Your task to perform on an android device: turn on the 24-hour format for clock Image 0: 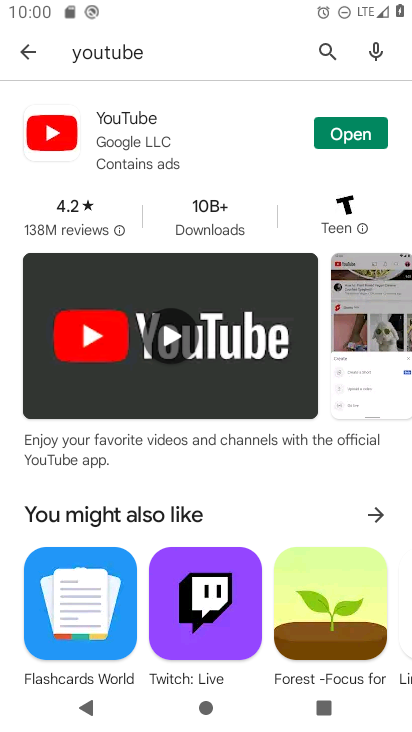
Step 0: press home button
Your task to perform on an android device: turn on the 24-hour format for clock Image 1: 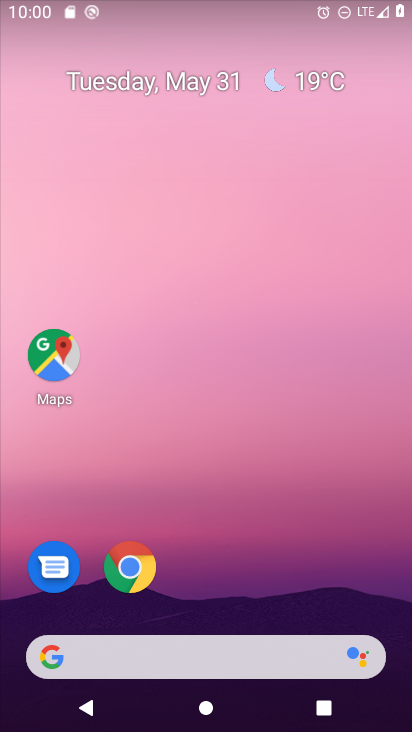
Step 1: drag from (203, 626) to (210, 258)
Your task to perform on an android device: turn on the 24-hour format for clock Image 2: 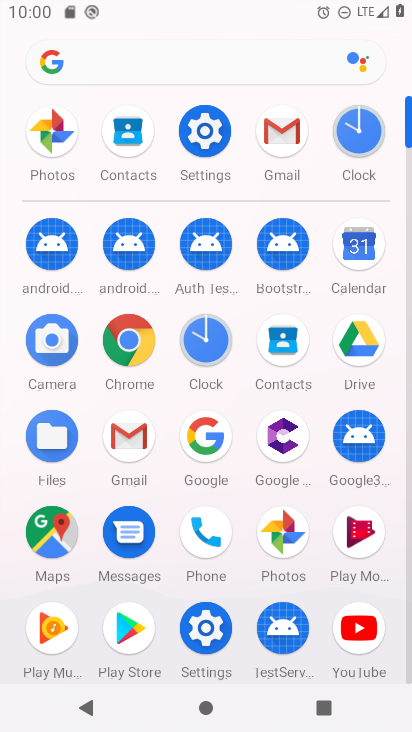
Step 2: click (183, 360)
Your task to perform on an android device: turn on the 24-hour format for clock Image 3: 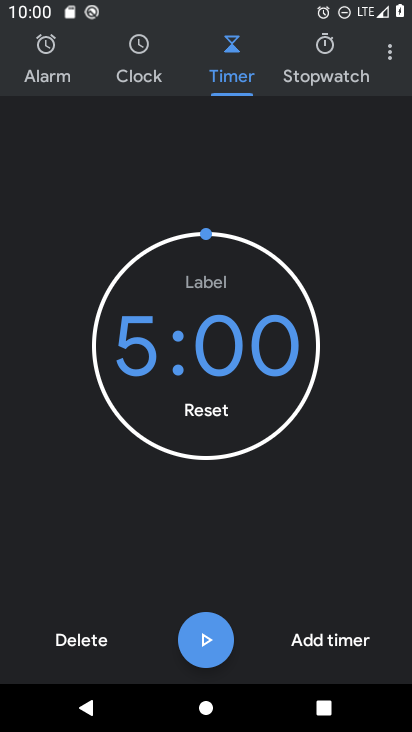
Step 3: click (393, 51)
Your task to perform on an android device: turn on the 24-hour format for clock Image 4: 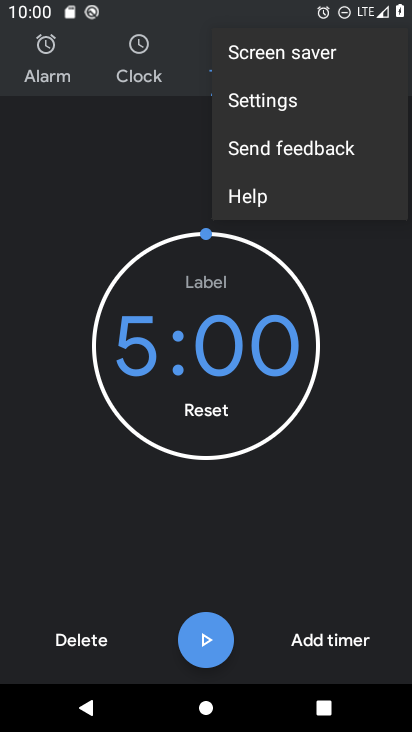
Step 4: click (264, 106)
Your task to perform on an android device: turn on the 24-hour format for clock Image 5: 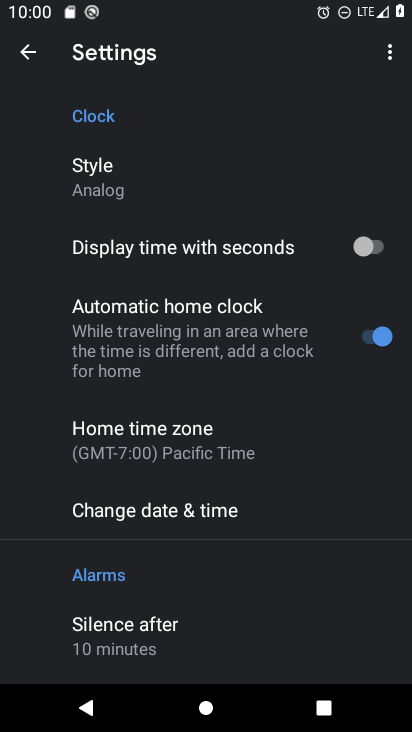
Step 5: drag from (120, 632) to (141, 171)
Your task to perform on an android device: turn on the 24-hour format for clock Image 6: 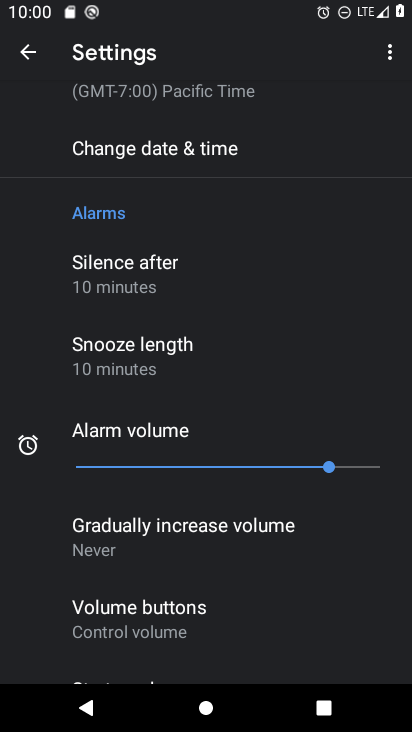
Step 6: drag from (120, 659) to (144, 319)
Your task to perform on an android device: turn on the 24-hour format for clock Image 7: 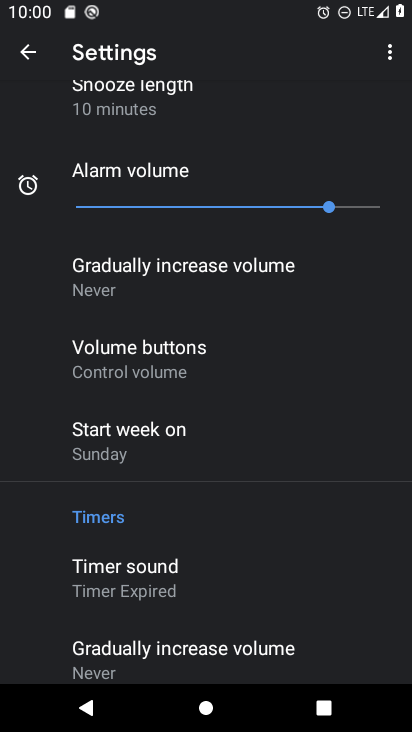
Step 7: drag from (249, 112) to (252, 485)
Your task to perform on an android device: turn on the 24-hour format for clock Image 8: 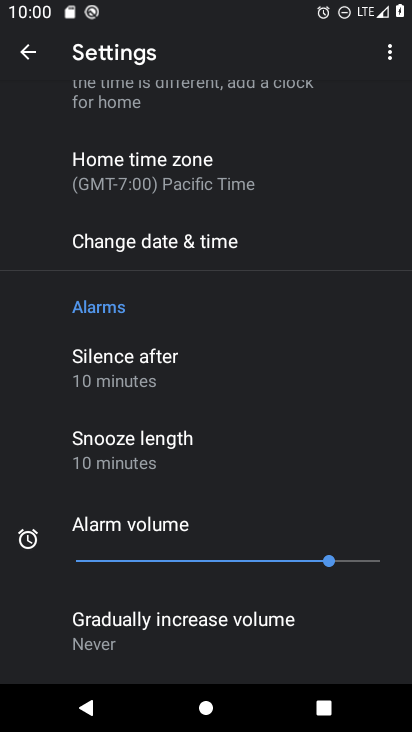
Step 8: click (151, 253)
Your task to perform on an android device: turn on the 24-hour format for clock Image 9: 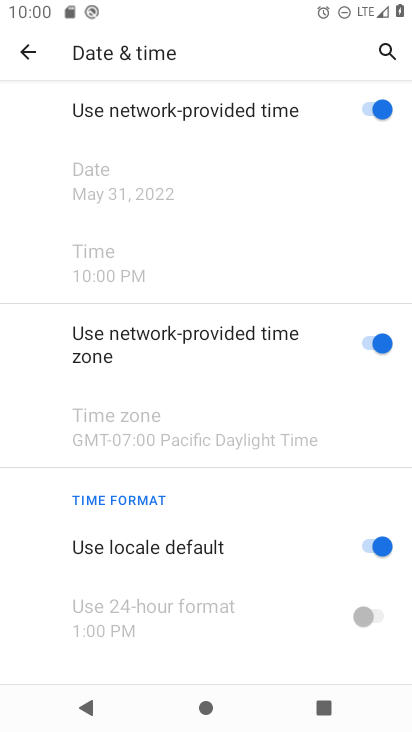
Step 9: drag from (191, 648) to (157, 315)
Your task to perform on an android device: turn on the 24-hour format for clock Image 10: 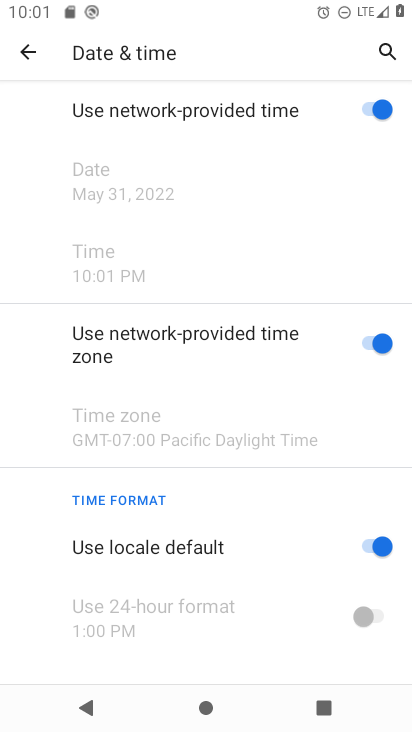
Step 10: click (368, 537)
Your task to perform on an android device: turn on the 24-hour format for clock Image 11: 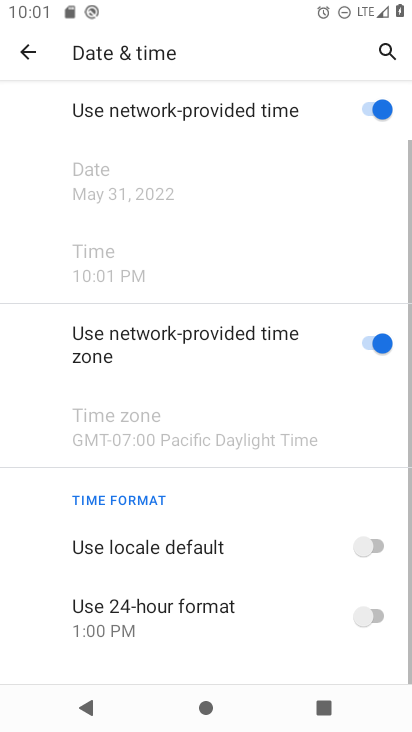
Step 11: click (372, 619)
Your task to perform on an android device: turn on the 24-hour format for clock Image 12: 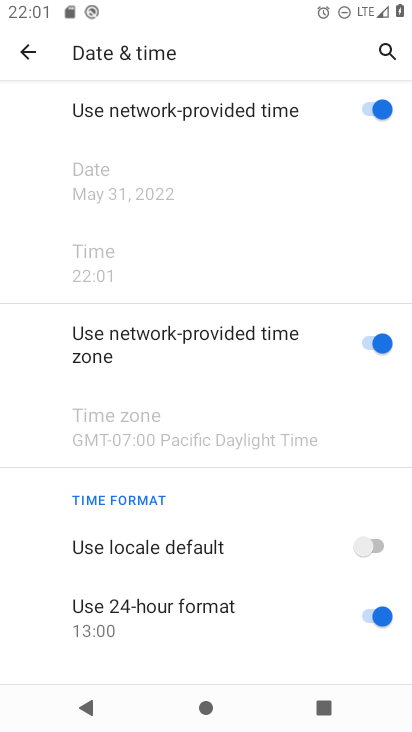
Step 12: task complete